Your task to perform on an android device: check battery use Image 0: 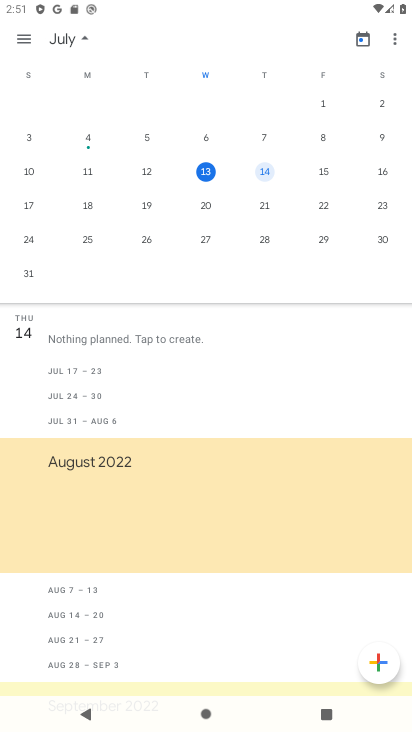
Step 0: drag from (167, 517) to (155, 575)
Your task to perform on an android device: check battery use Image 1: 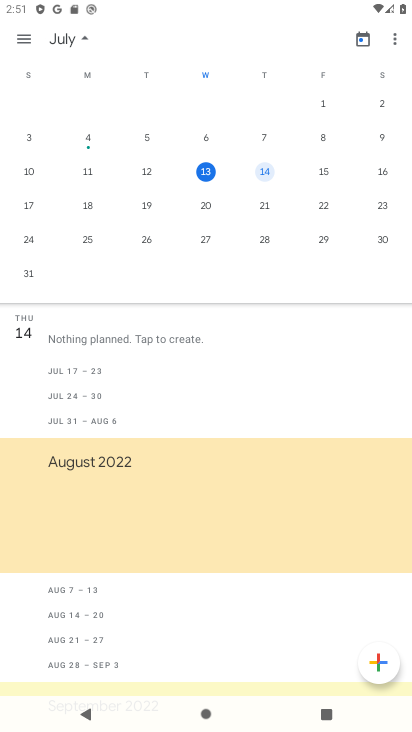
Step 1: drag from (158, 2) to (286, 502)
Your task to perform on an android device: check battery use Image 2: 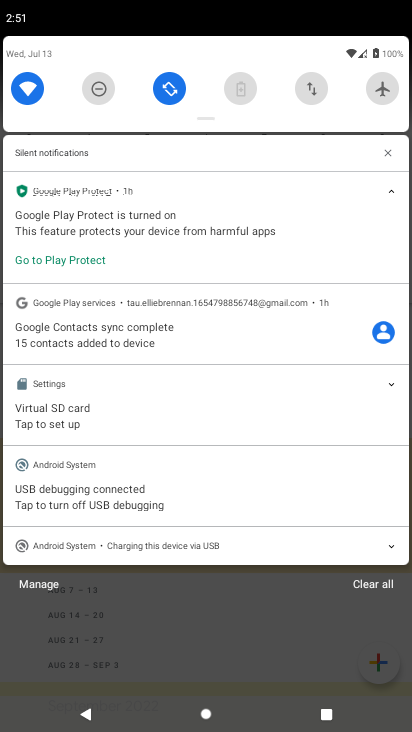
Step 2: click (240, 97)
Your task to perform on an android device: check battery use Image 3: 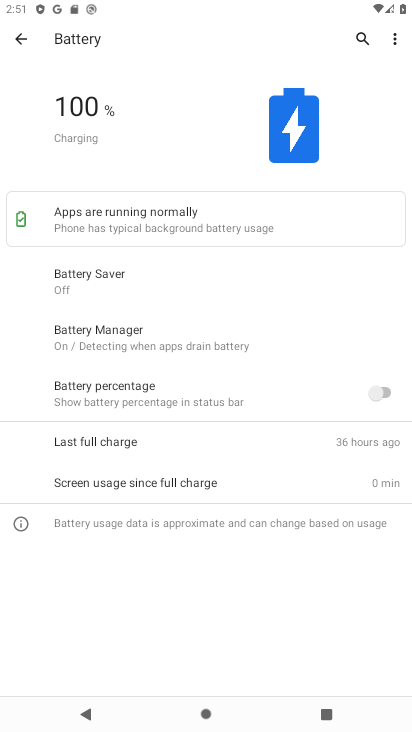
Step 3: click (404, 31)
Your task to perform on an android device: check battery use Image 4: 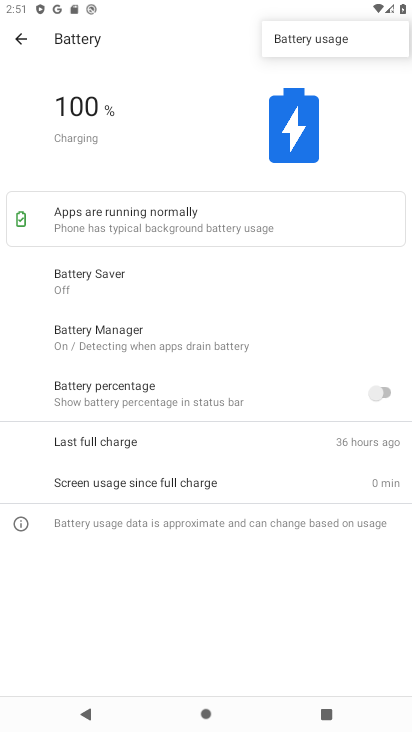
Step 4: click (302, 43)
Your task to perform on an android device: check battery use Image 5: 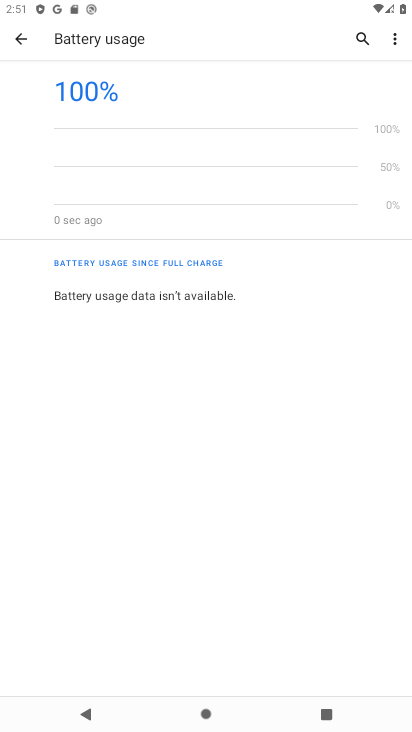
Step 5: task complete